Your task to perform on an android device: change notification settings in the gmail app Image 0: 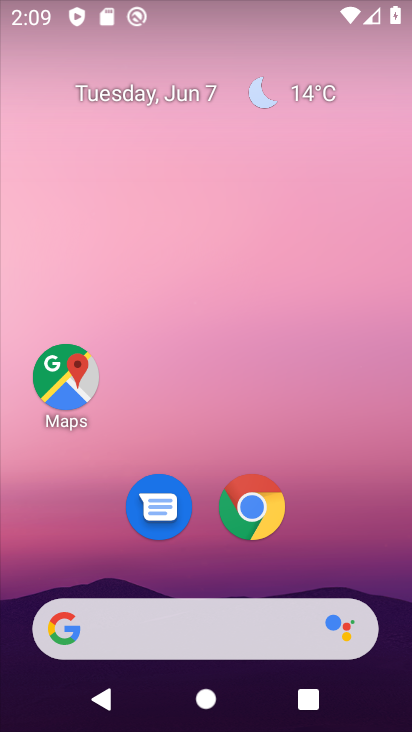
Step 0: drag from (365, 490) to (286, 54)
Your task to perform on an android device: change notification settings in the gmail app Image 1: 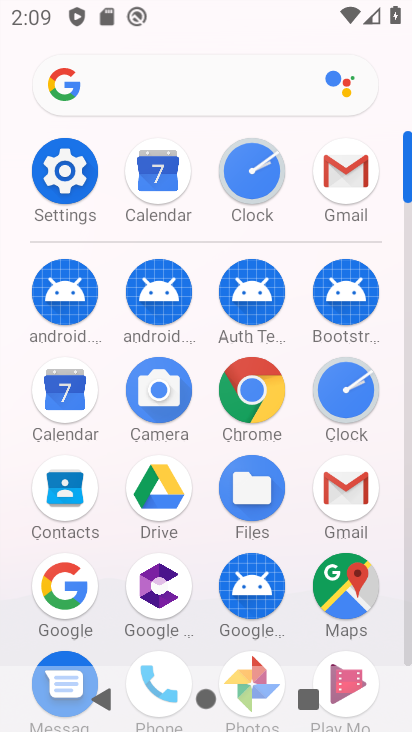
Step 1: click (344, 164)
Your task to perform on an android device: change notification settings in the gmail app Image 2: 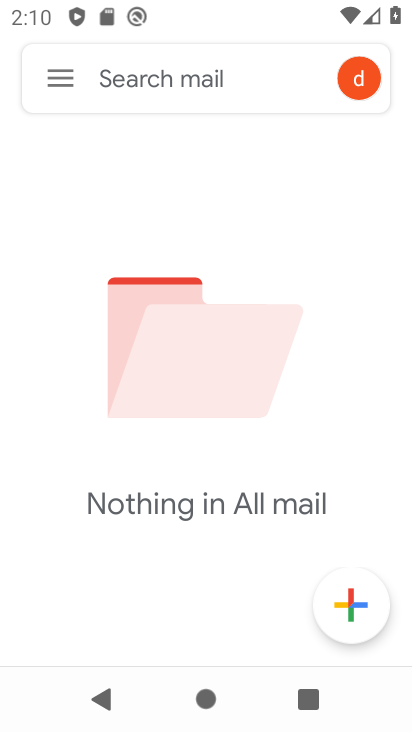
Step 2: click (57, 77)
Your task to perform on an android device: change notification settings in the gmail app Image 3: 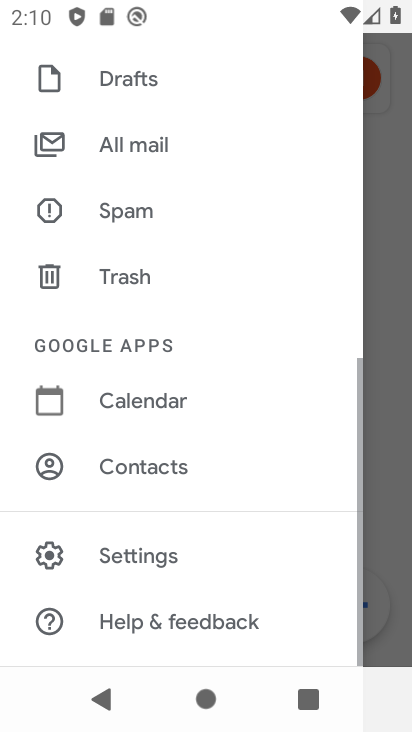
Step 3: drag from (142, 583) to (213, 273)
Your task to perform on an android device: change notification settings in the gmail app Image 4: 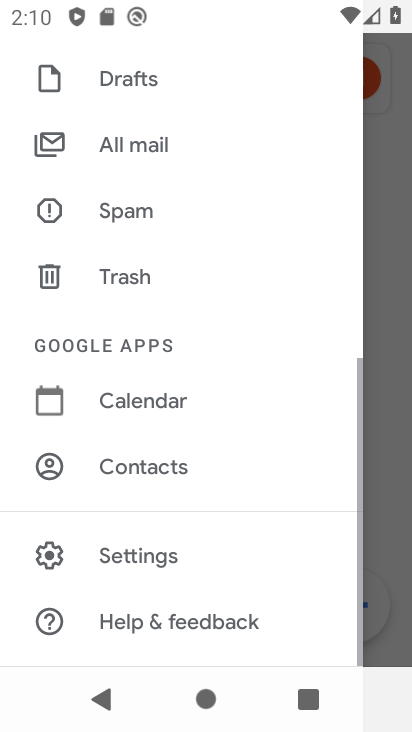
Step 4: click (146, 546)
Your task to perform on an android device: change notification settings in the gmail app Image 5: 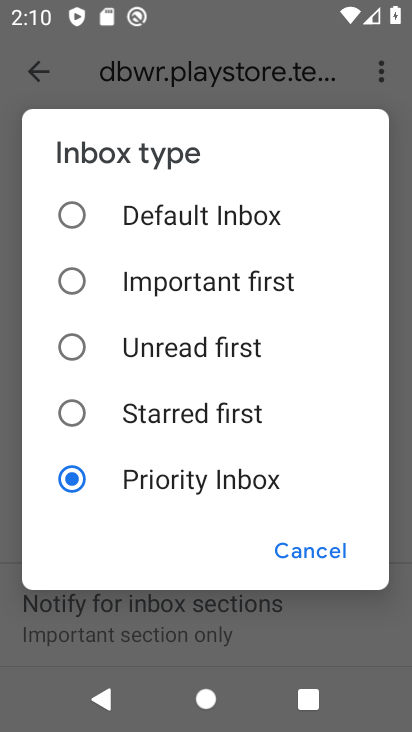
Step 5: click (298, 542)
Your task to perform on an android device: change notification settings in the gmail app Image 6: 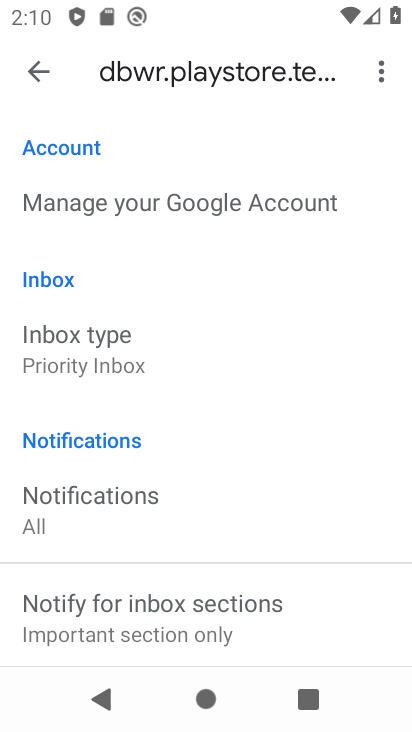
Step 6: drag from (224, 505) to (240, 175)
Your task to perform on an android device: change notification settings in the gmail app Image 7: 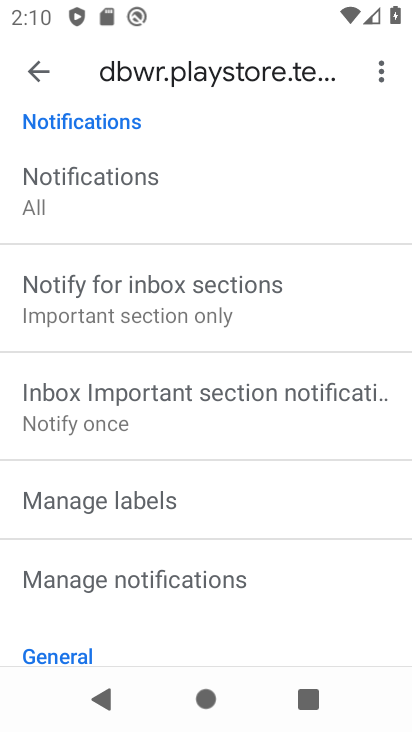
Step 7: click (155, 585)
Your task to perform on an android device: change notification settings in the gmail app Image 8: 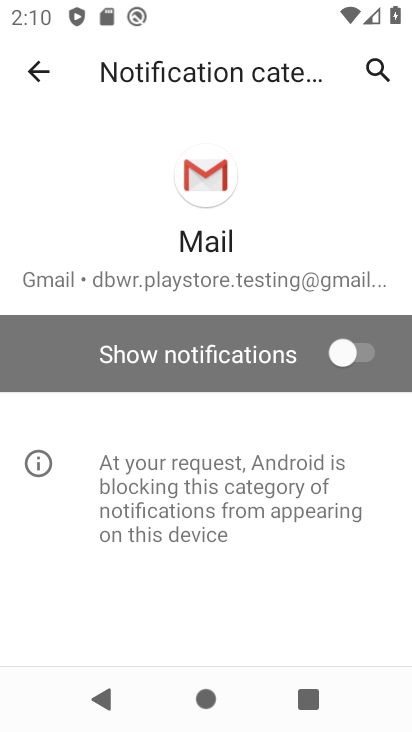
Step 8: click (309, 357)
Your task to perform on an android device: change notification settings in the gmail app Image 9: 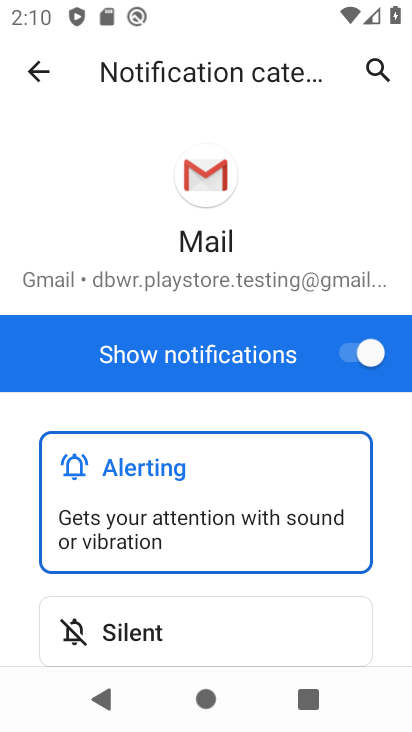
Step 9: task complete